Your task to perform on an android device: open device folders in google photos Image 0: 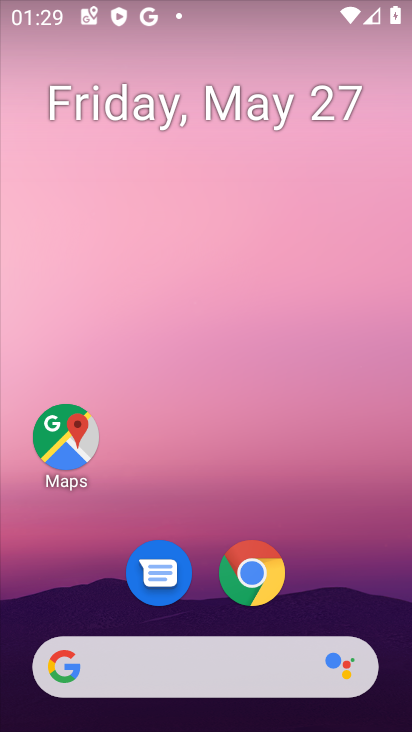
Step 0: drag from (207, 609) to (215, 8)
Your task to perform on an android device: open device folders in google photos Image 1: 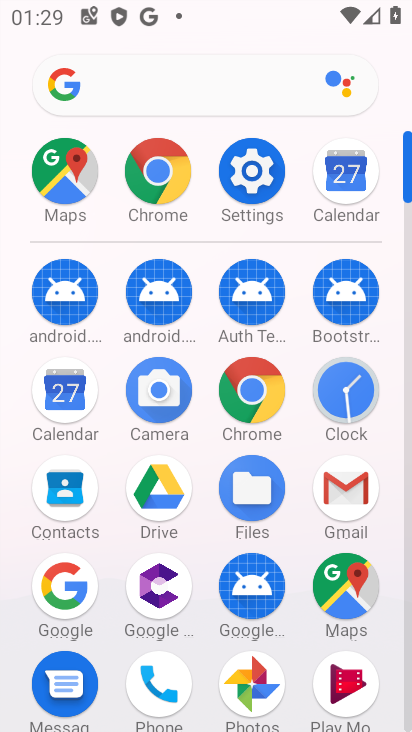
Step 1: click (270, 689)
Your task to perform on an android device: open device folders in google photos Image 2: 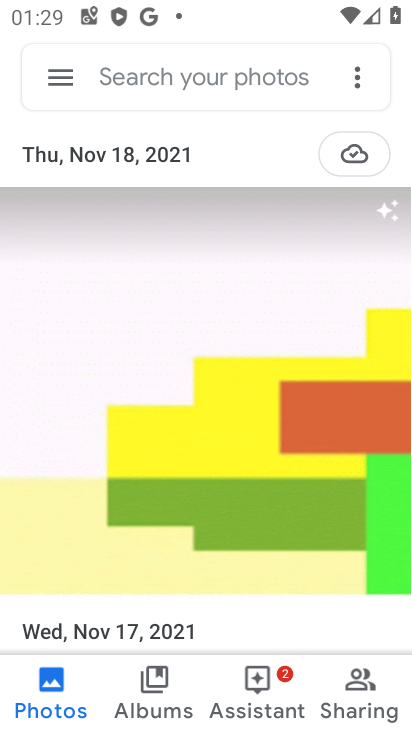
Step 2: click (65, 75)
Your task to perform on an android device: open device folders in google photos Image 3: 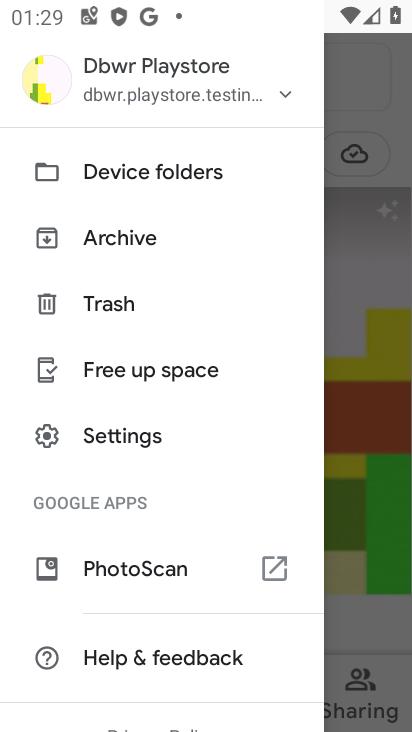
Step 3: click (112, 187)
Your task to perform on an android device: open device folders in google photos Image 4: 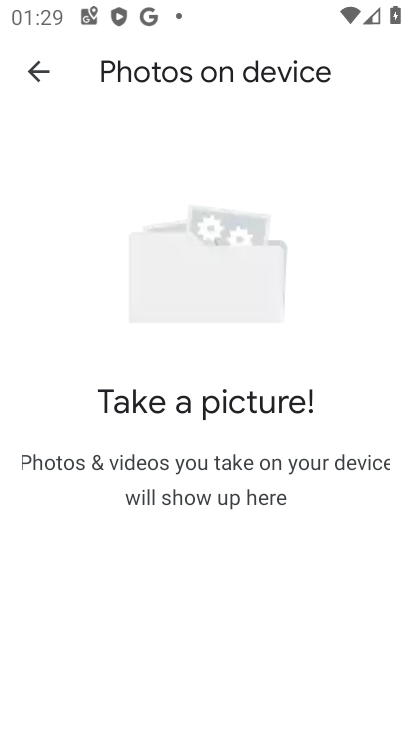
Step 4: task complete